Your task to perform on an android device: Open Google Maps Image 0: 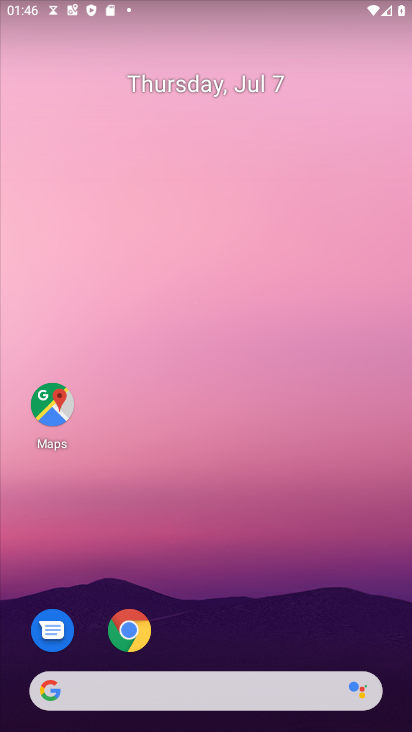
Step 0: click (61, 392)
Your task to perform on an android device: Open Google Maps Image 1: 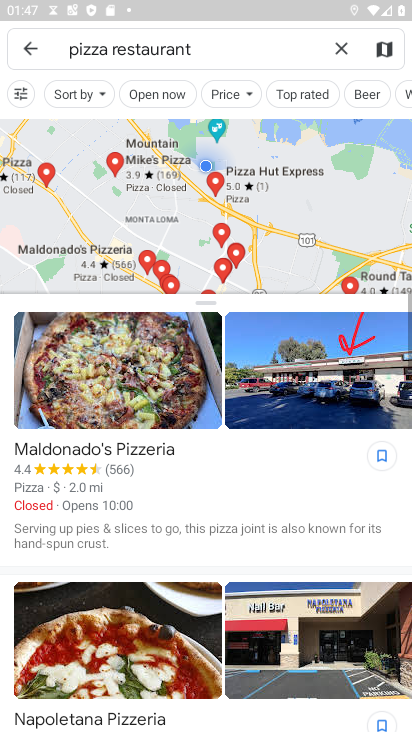
Step 1: task complete